Your task to perform on an android device: What's the weather going to be tomorrow? Image 0: 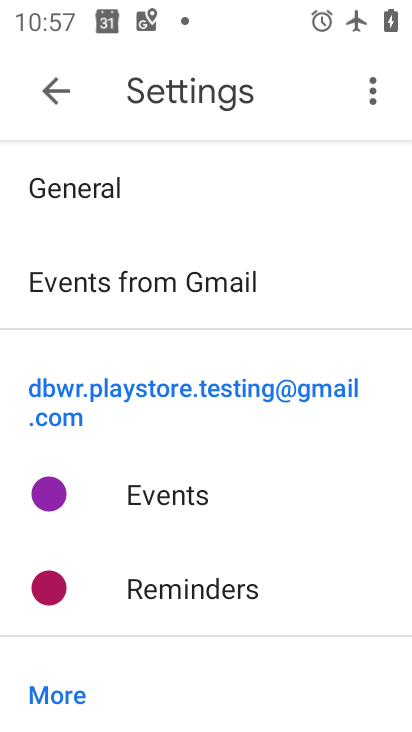
Step 0: press home button
Your task to perform on an android device: What's the weather going to be tomorrow? Image 1: 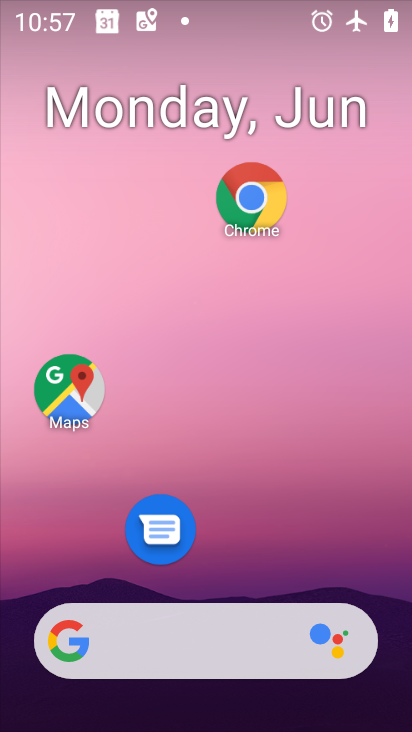
Step 1: drag from (219, 553) to (179, 207)
Your task to perform on an android device: What's the weather going to be tomorrow? Image 2: 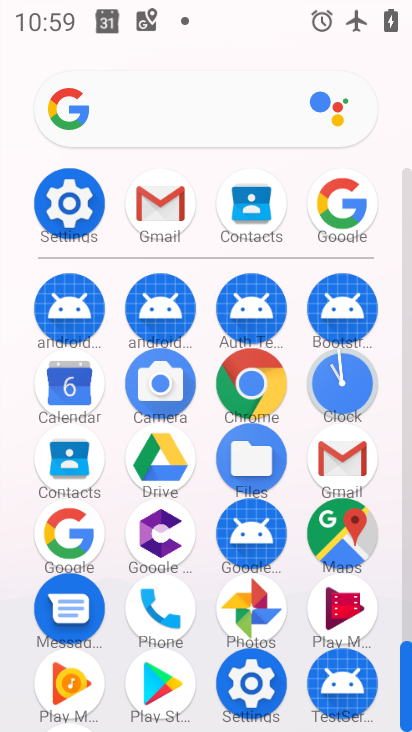
Step 2: click (62, 545)
Your task to perform on an android device: What's the weather going to be tomorrow? Image 3: 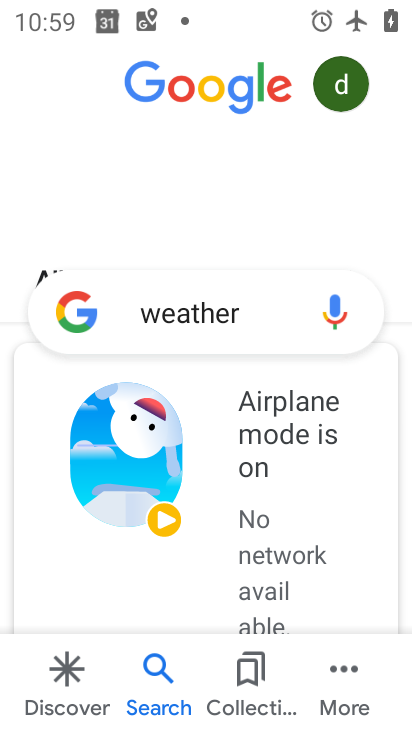
Step 3: task complete